Your task to perform on an android device: turn off notifications settings in the gmail app Image 0: 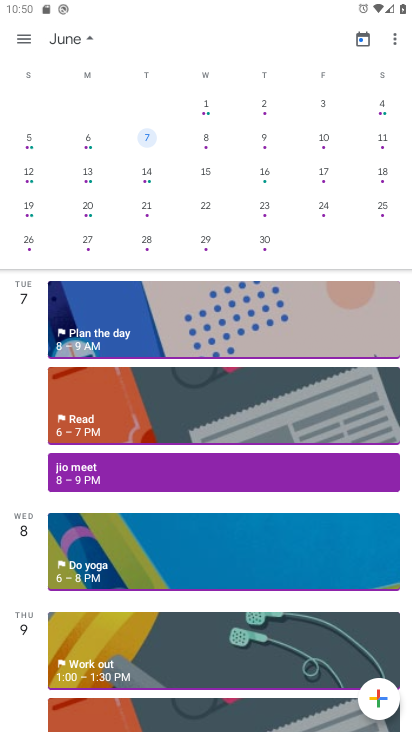
Step 0: press home button
Your task to perform on an android device: turn off notifications settings in the gmail app Image 1: 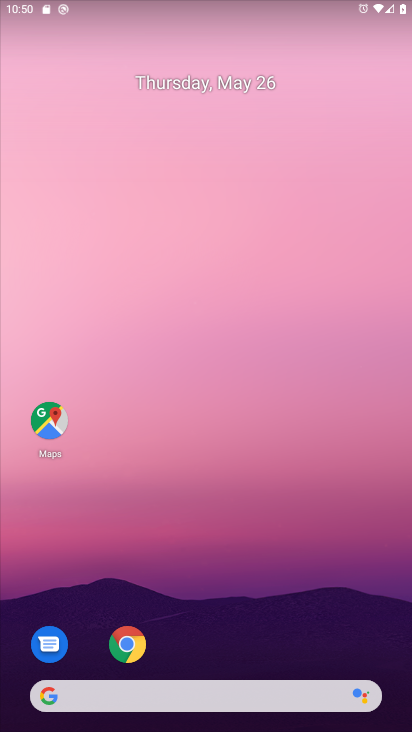
Step 1: drag from (358, 641) to (345, 271)
Your task to perform on an android device: turn off notifications settings in the gmail app Image 2: 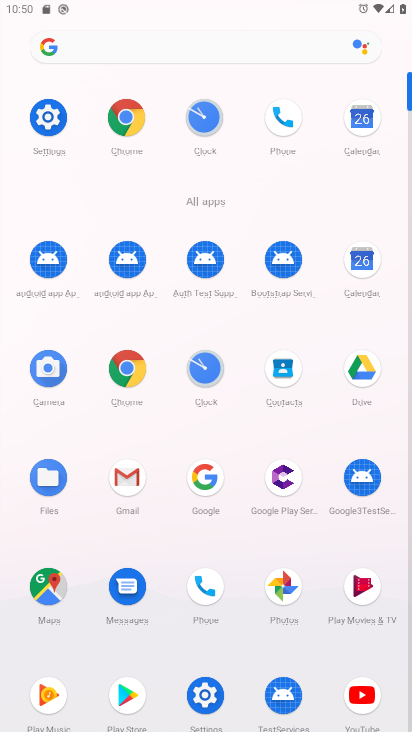
Step 2: click (122, 499)
Your task to perform on an android device: turn off notifications settings in the gmail app Image 3: 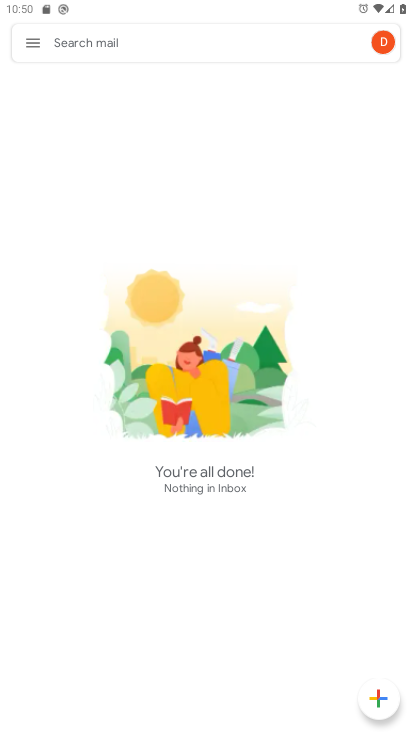
Step 3: click (29, 42)
Your task to perform on an android device: turn off notifications settings in the gmail app Image 4: 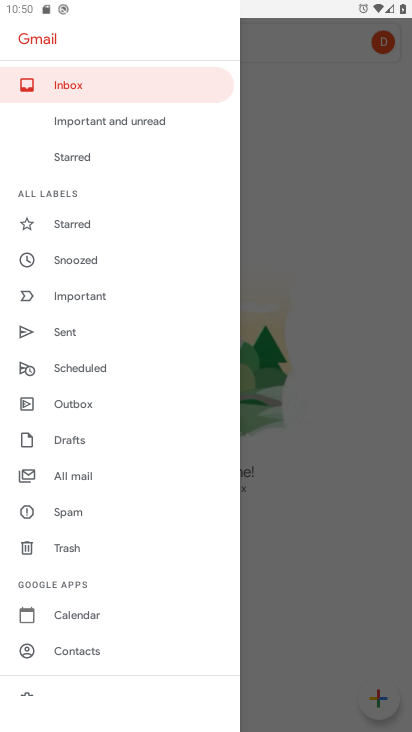
Step 4: drag from (152, 512) to (166, 388)
Your task to perform on an android device: turn off notifications settings in the gmail app Image 5: 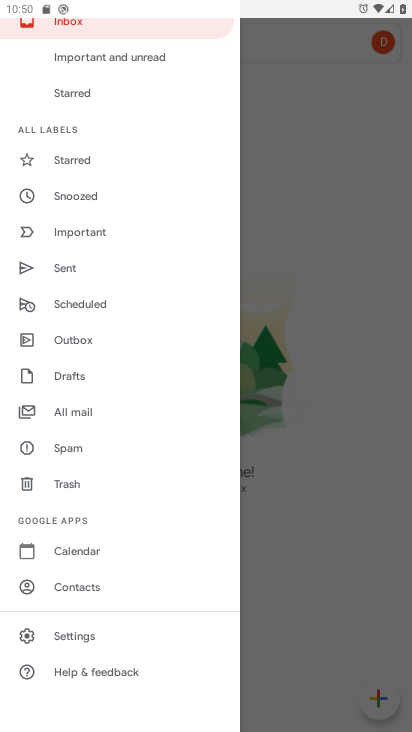
Step 5: click (85, 641)
Your task to perform on an android device: turn off notifications settings in the gmail app Image 6: 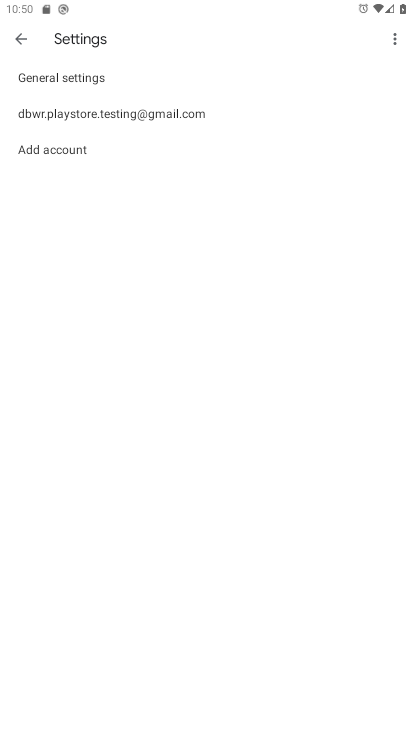
Step 6: click (182, 109)
Your task to perform on an android device: turn off notifications settings in the gmail app Image 7: 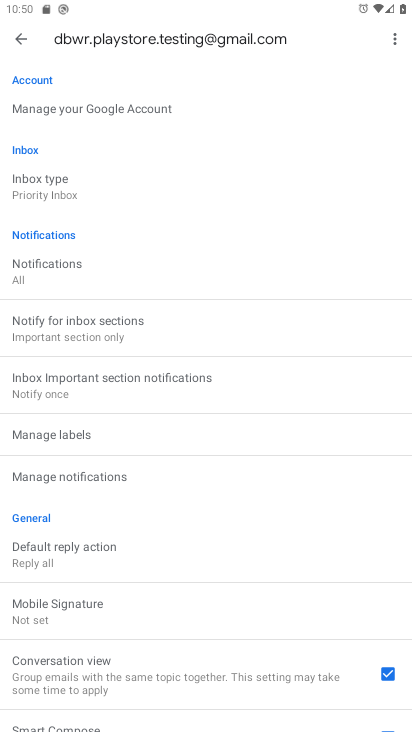
Step 7: drag from (280, 499) to (303, 389)
Your task to perform on an android device: turn off notifications settings in the gmail app Image 8: 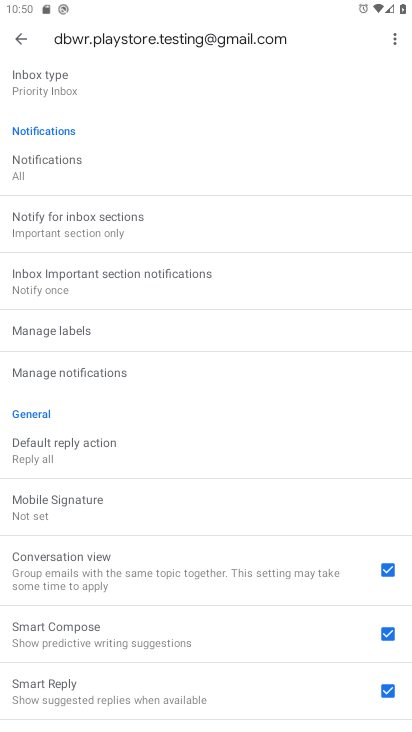
Step 8: drag from (291, 476) to (283, 302)
Your task to perform on an android device: turn off notifications settings in the gmail app Image 9: 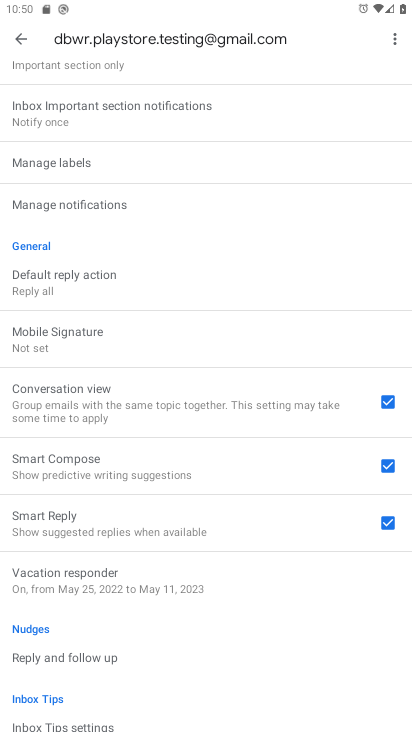
Step 9: click (119, 202)
Your task to perform on an android device: turn off notifications settings in the gmail app Image 10: 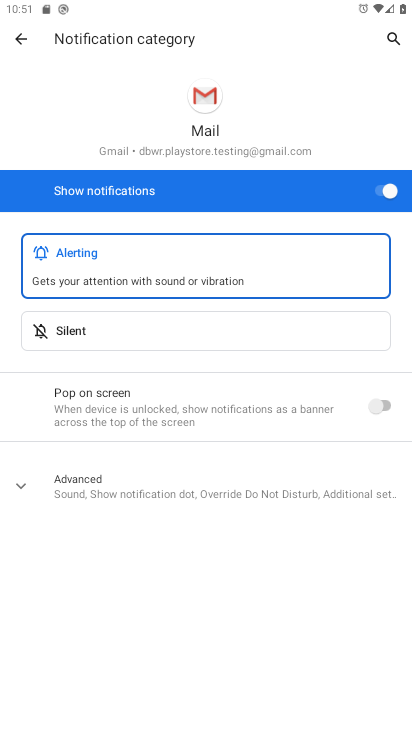
Step 10: click (389, 191)
Your task to perform on an android device: turn off notifications settings in the gmail app Image 11: 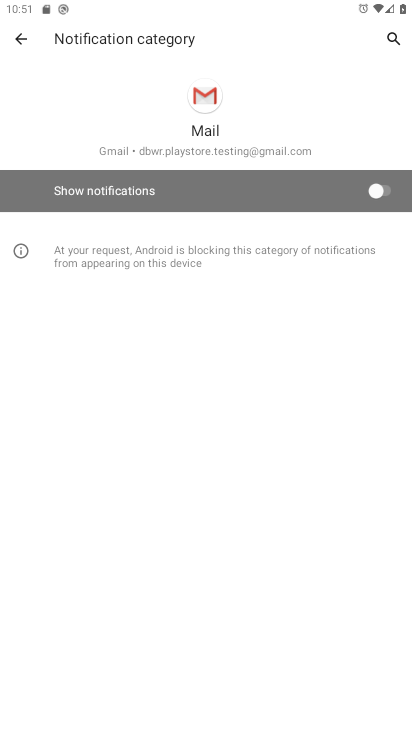
Step 11: task complete